Your task to perform on an android device: set the stopwatch Image 0: 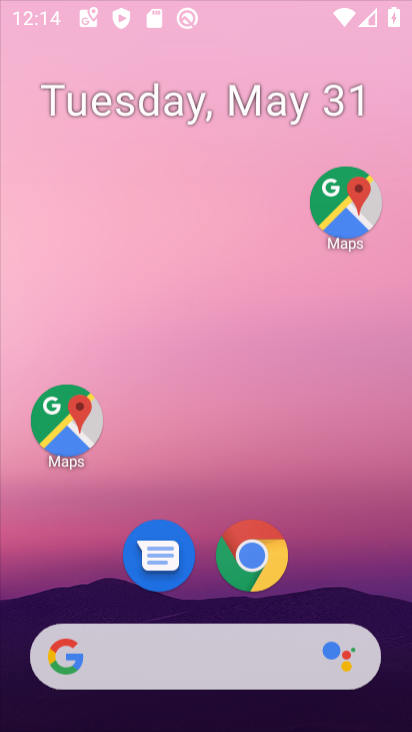
Step 0: drag from (347, 547) to (345, 124)
Your task to perform on an android device: set the stopwatch Image 1: 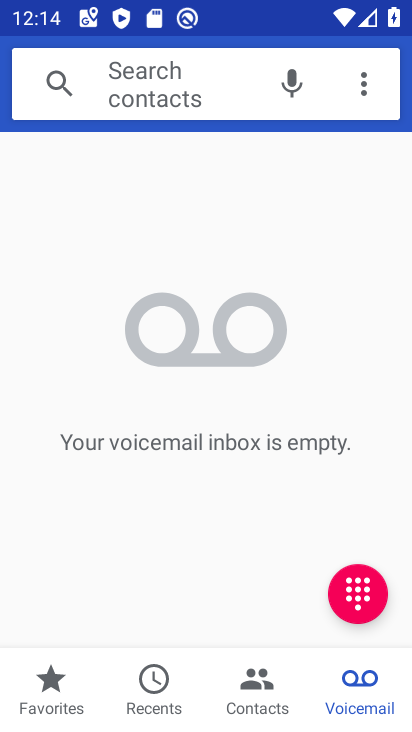
Step 1: press home button
Your task to perform on an android device: set the stopwatch Image 2: 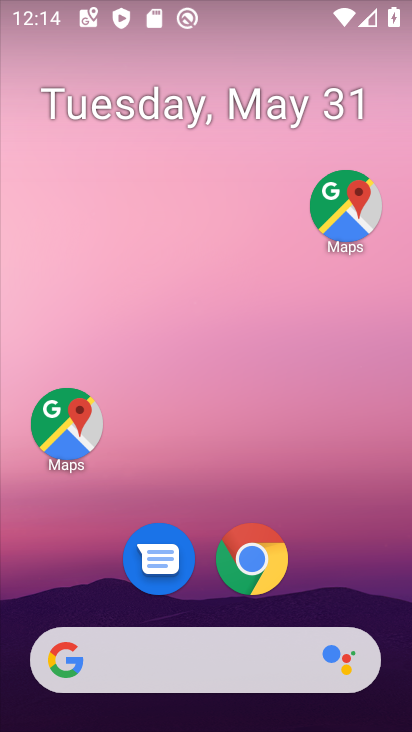
Step 2: drag from (294, 507) to (287, 170)
Your task to perform on an android device: set the stopwatch Image 3: 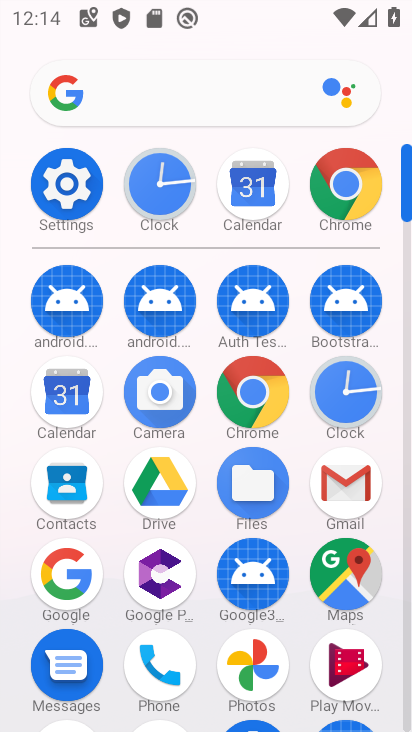
Step 3: click (349, 385)
Your task to perform on an android device: set the stopwatch Image 4: 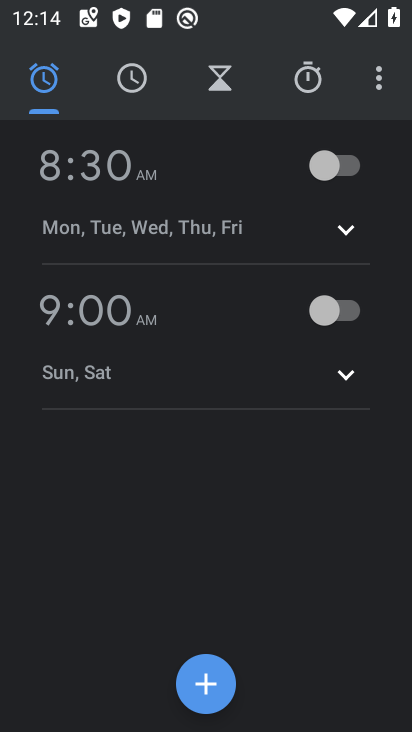
Step 4: click (317, 80)
Your task to perform on an android device: set the stopwatch Image 5: 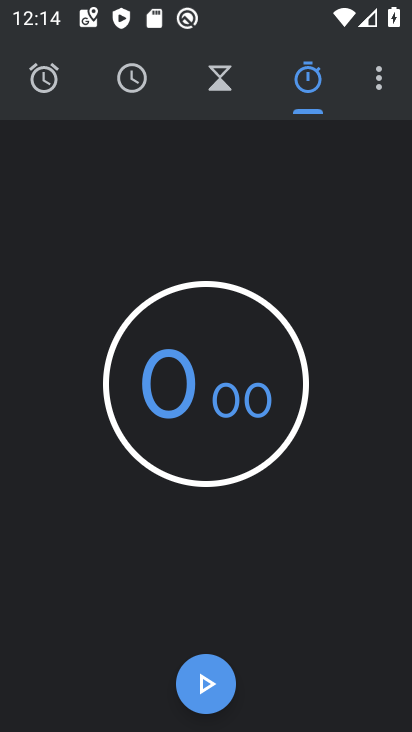
Step 5: click (224, 683)
Your task to perform on an android device: set the stopwatch Image 6: 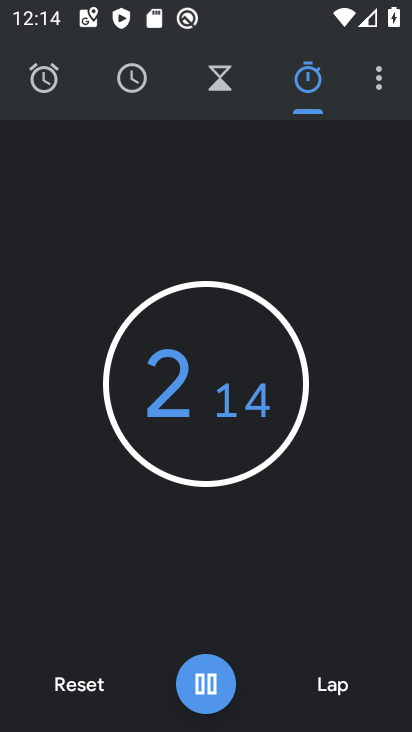
Step 6: click (195, 675)
Your task to perform on an android device: set the stopwatch Image 7: 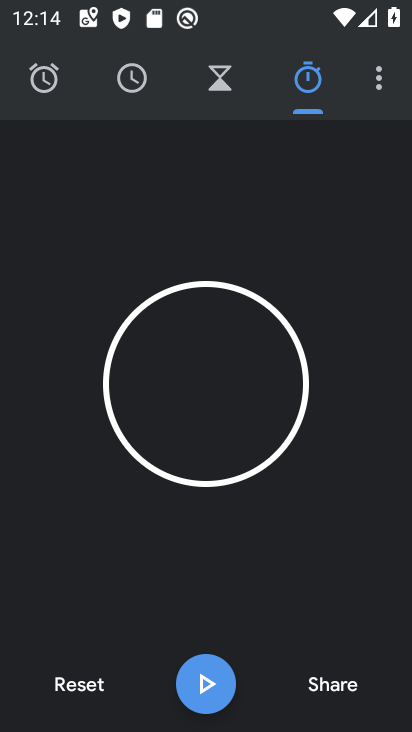
Step 7: task complete